Your task to perform on an android device: What's the weather? Image 0: 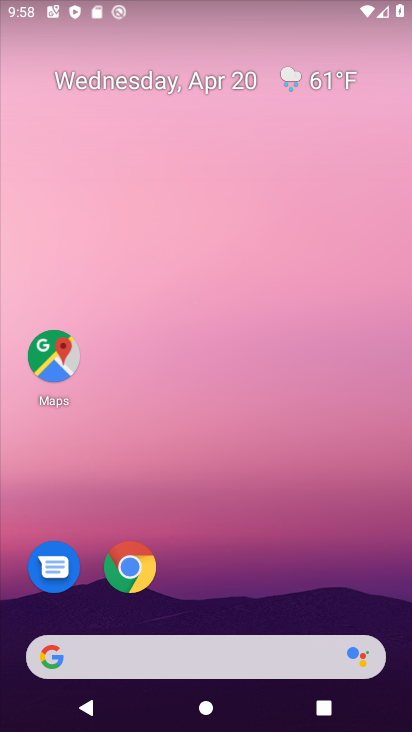
Step 0: drag from (197, 607) to (207, 195)
Your task to perform on an android device: What's the weather? Image 1: 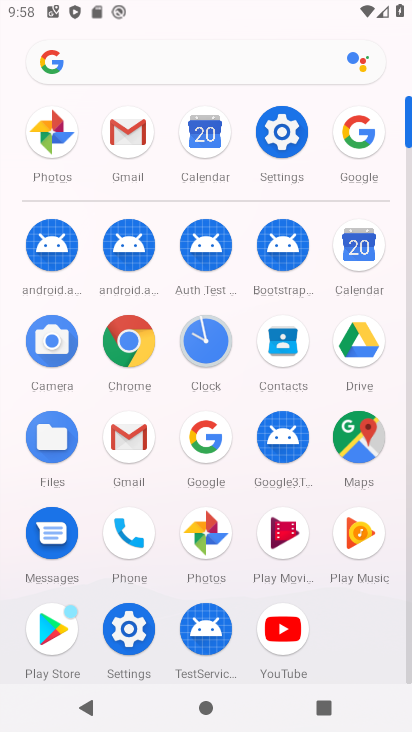
Step 1: click (209, 431)
Your task to perform on an android device: What's the weather? Image 2: 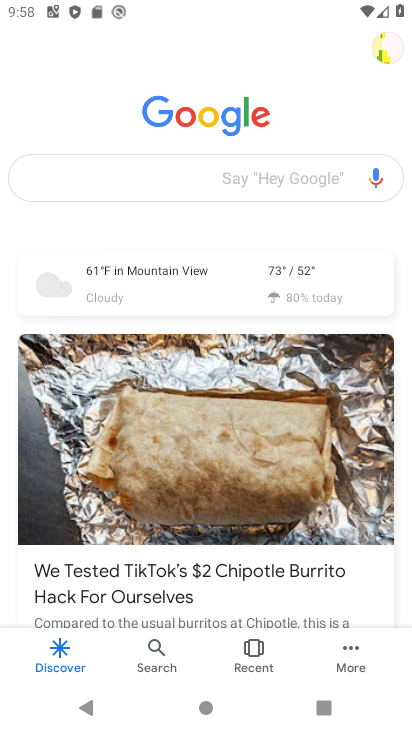
Step 2: click (144, 288)
Your task to perform on an android device: What's the weather? Image 3: 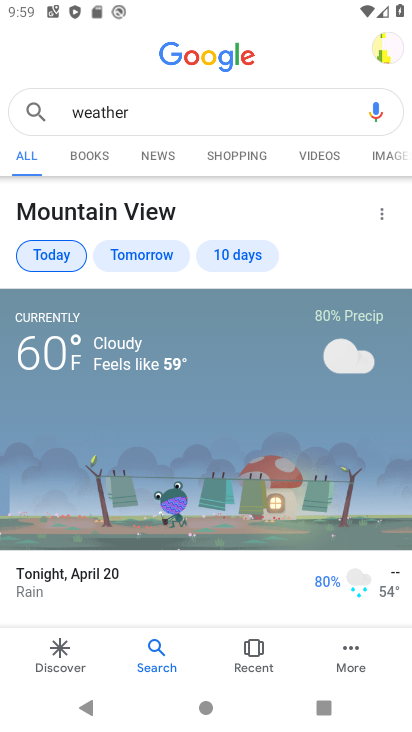
Step 3: task complete